Your task to perform on an android device: open chrome and create a bookmark for the current page Image 0: 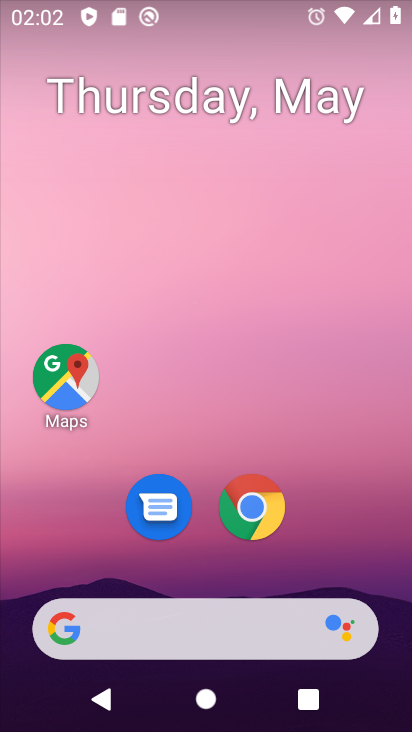
Step 0: click (268, 510)
Your task to perform on an android device: open chrome and create a bookmark for the current page Image 1: 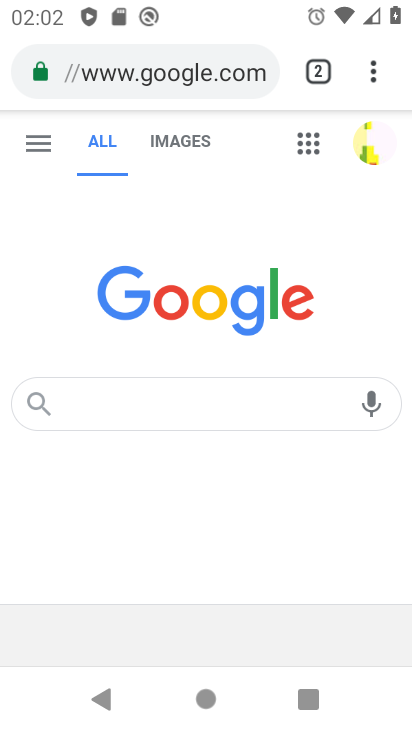
Step 1: click (325, 73)
Your task to perform on an android device: open chrome and create a bookmark for the current page Image 2: 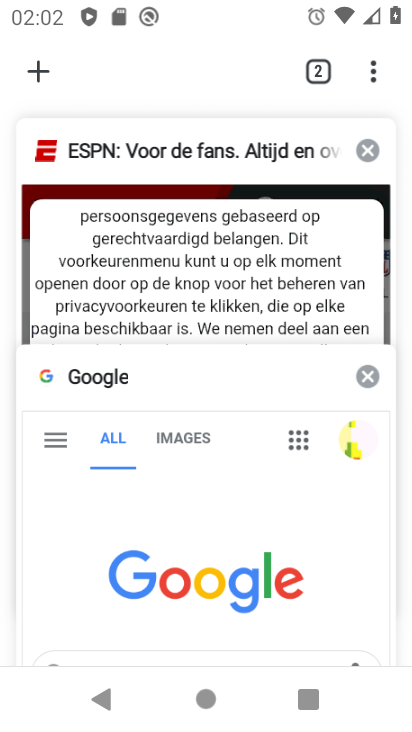
Step 2: click (203, 397)
Your task to perform on an android device: open chrome and create a bookmark for the current page Image 3: 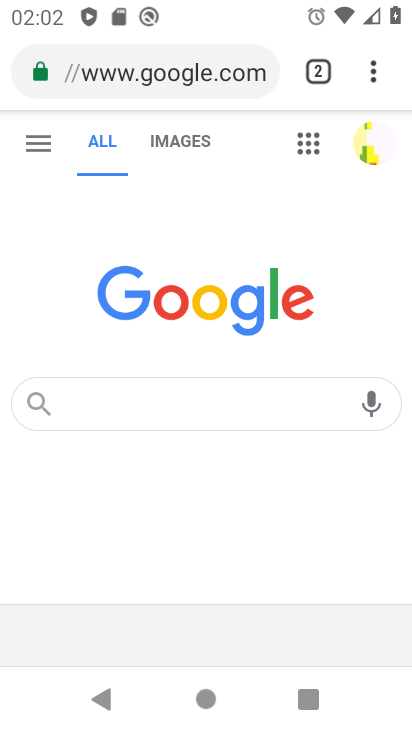
Step 3: click (375, 82)
Your task to perform on an android device: open chrome and create a bookmark for the current page Image 4: 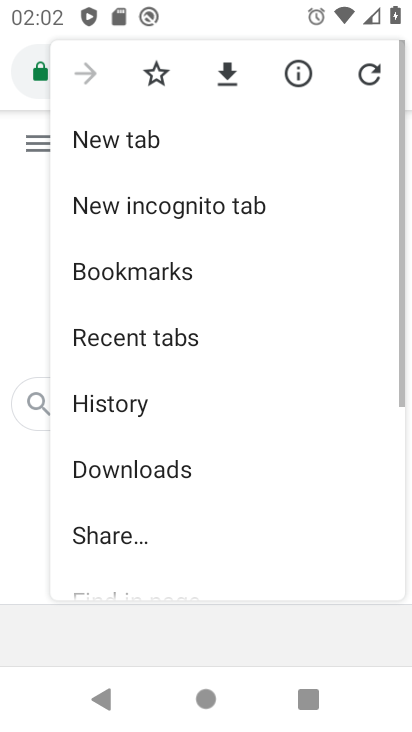
Step 4: click (142, 79)
Your task to perform on an android device: open chrome and create a bookmark for the current page Image 5: 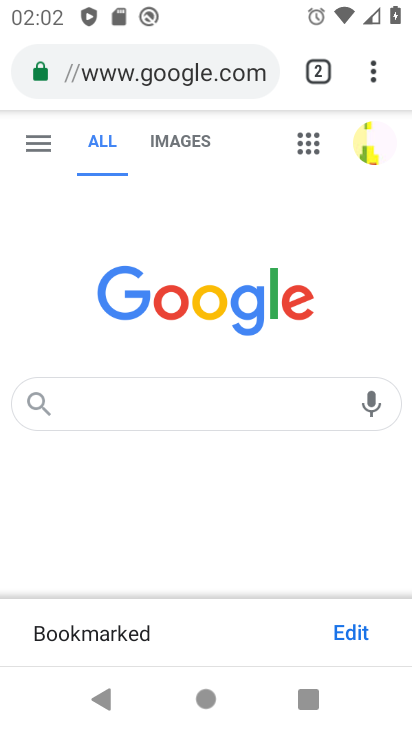
Step 5: task complete